Your task to perform on an android device: create a new album in the google photos Image 0: 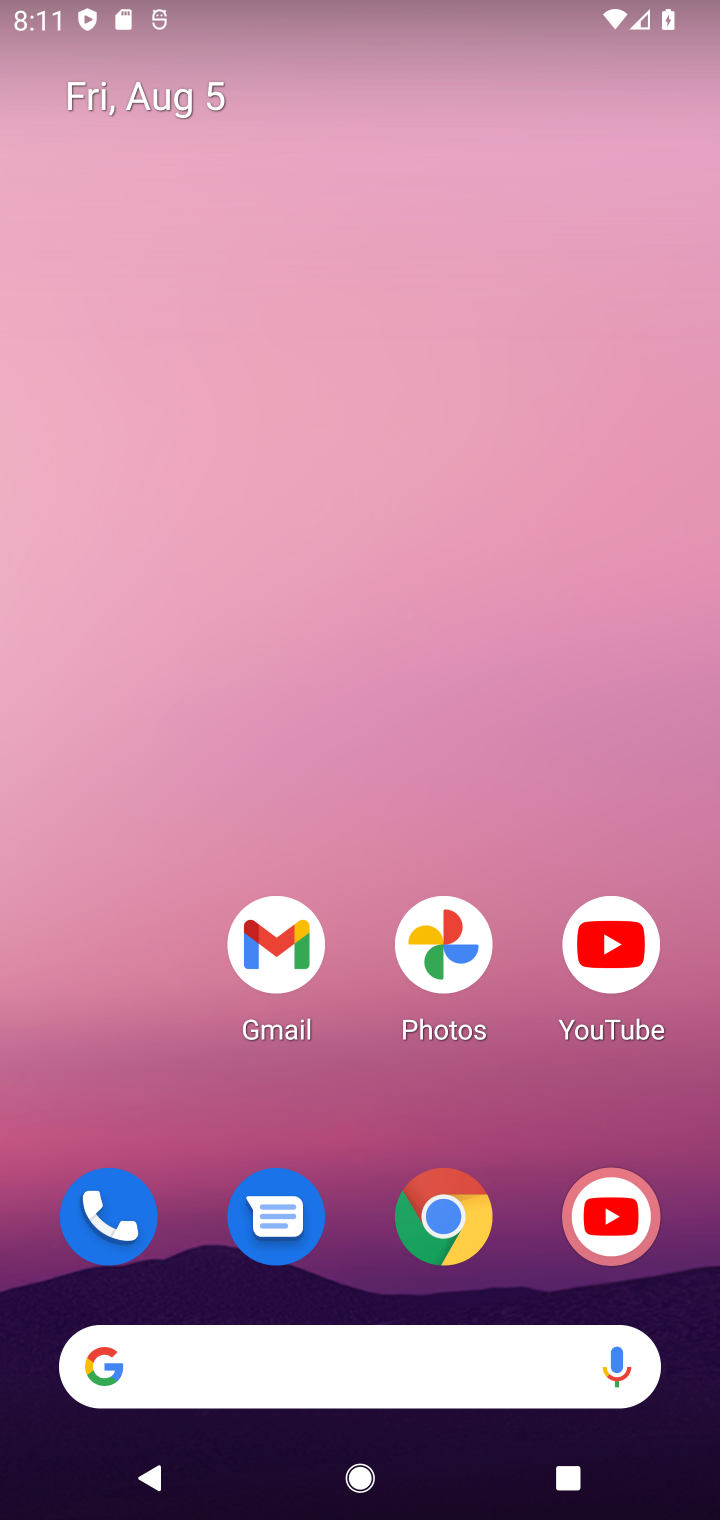
Step 0: drag from (309, 1013) to (378, 429)
Your task to perform on an android device: create a new album in the google photos Image 1: 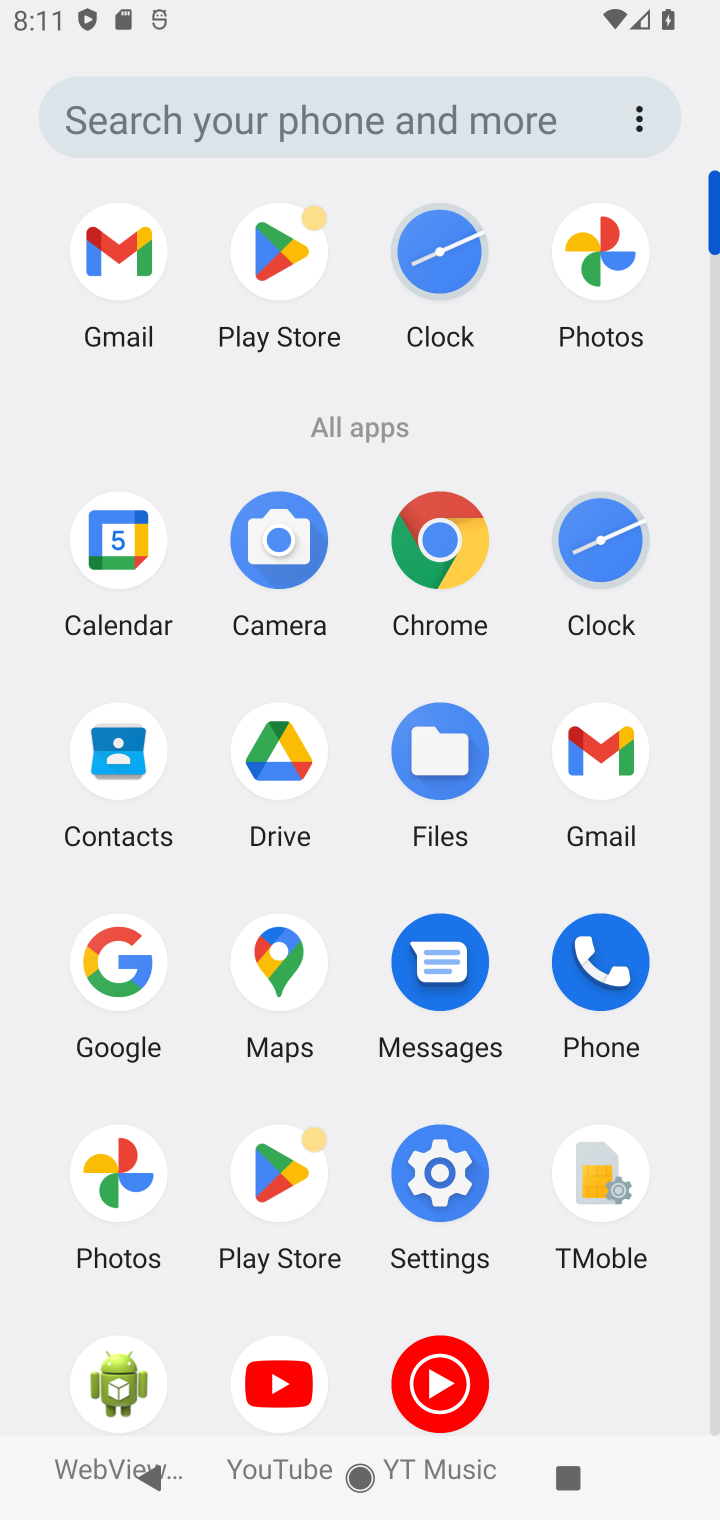
Step 1: click (596, 759)
Your task to perform on an android device: create a new album in the google photos Image 2: 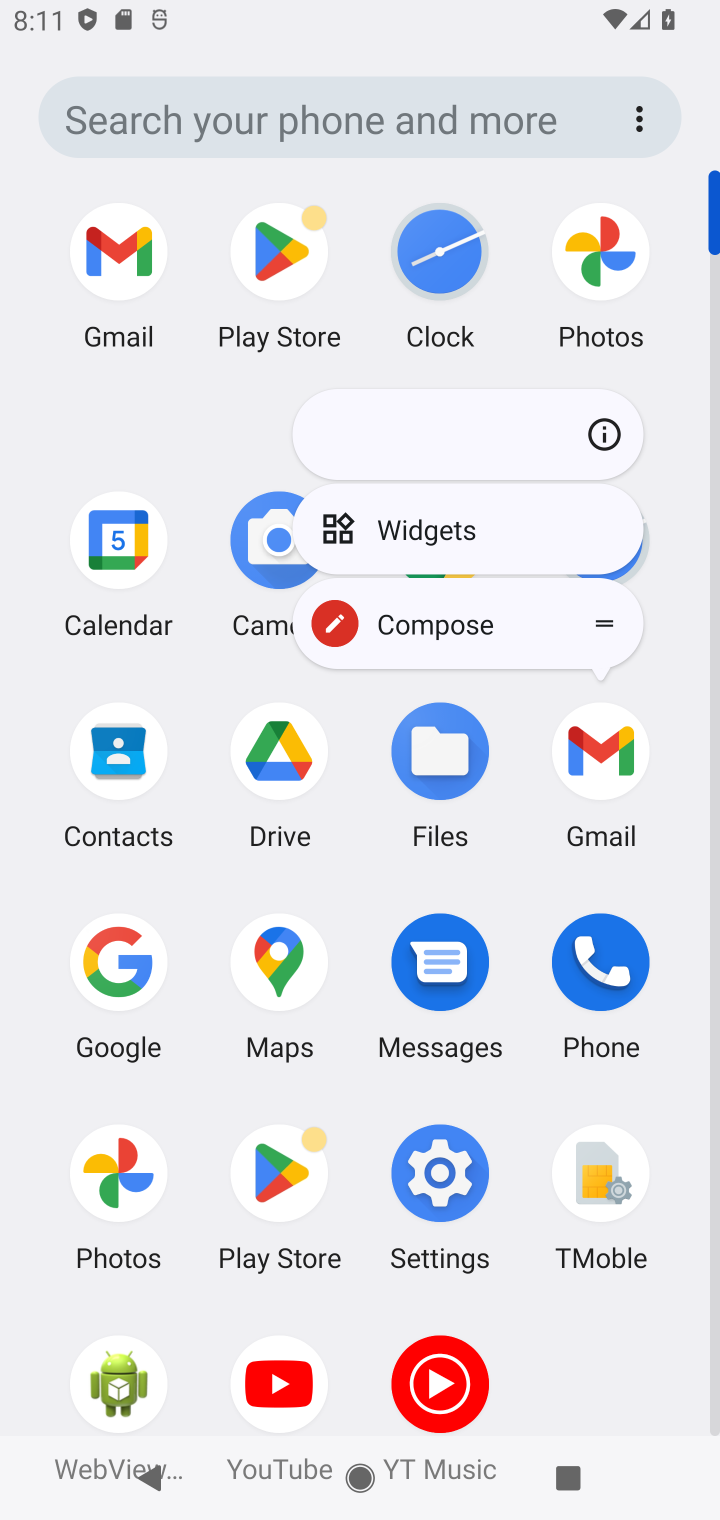
Step 2: click (605, 413)
Your task to perform on an android device: create a new album in the google photos Image 3: 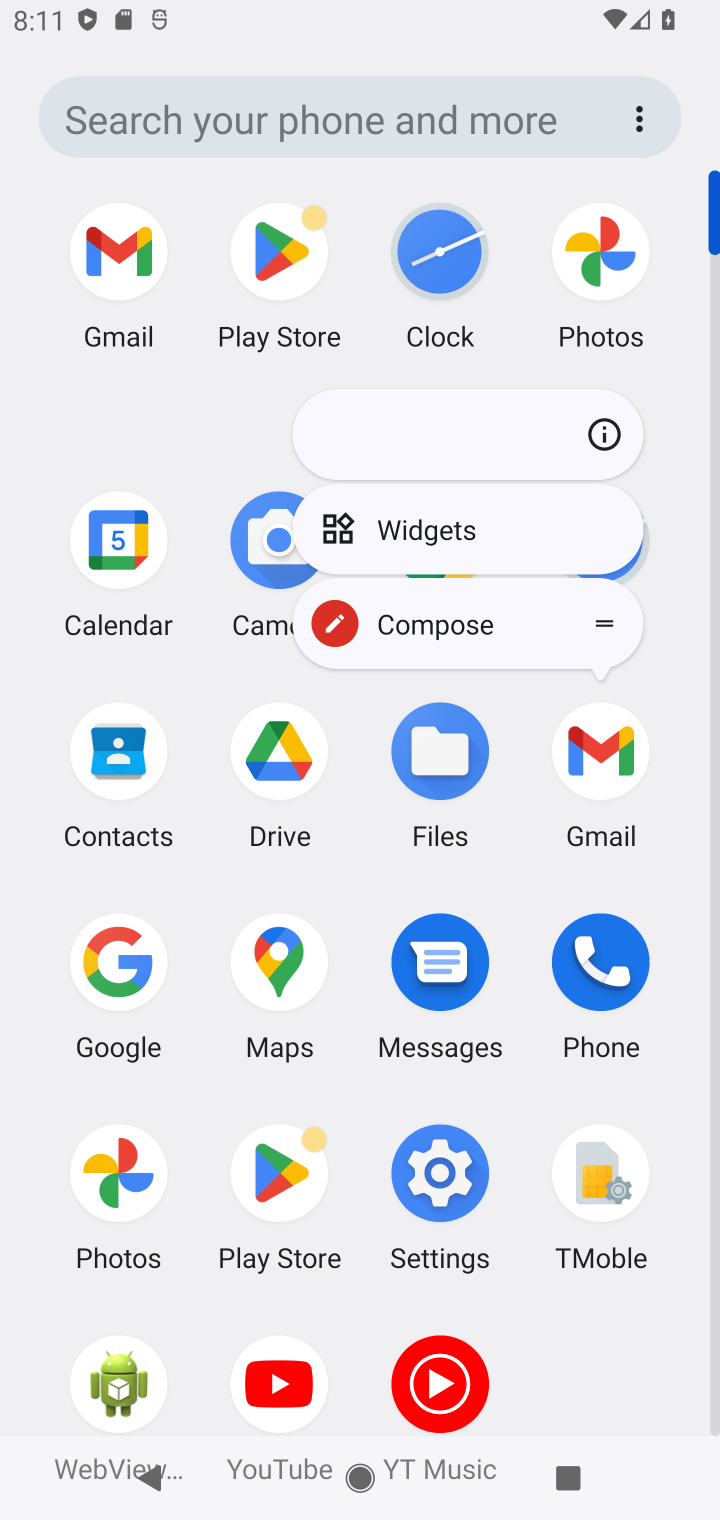
Step 3: click (601, 450)
Your task to perform on an android device: create a new album in the google photos Image 4: 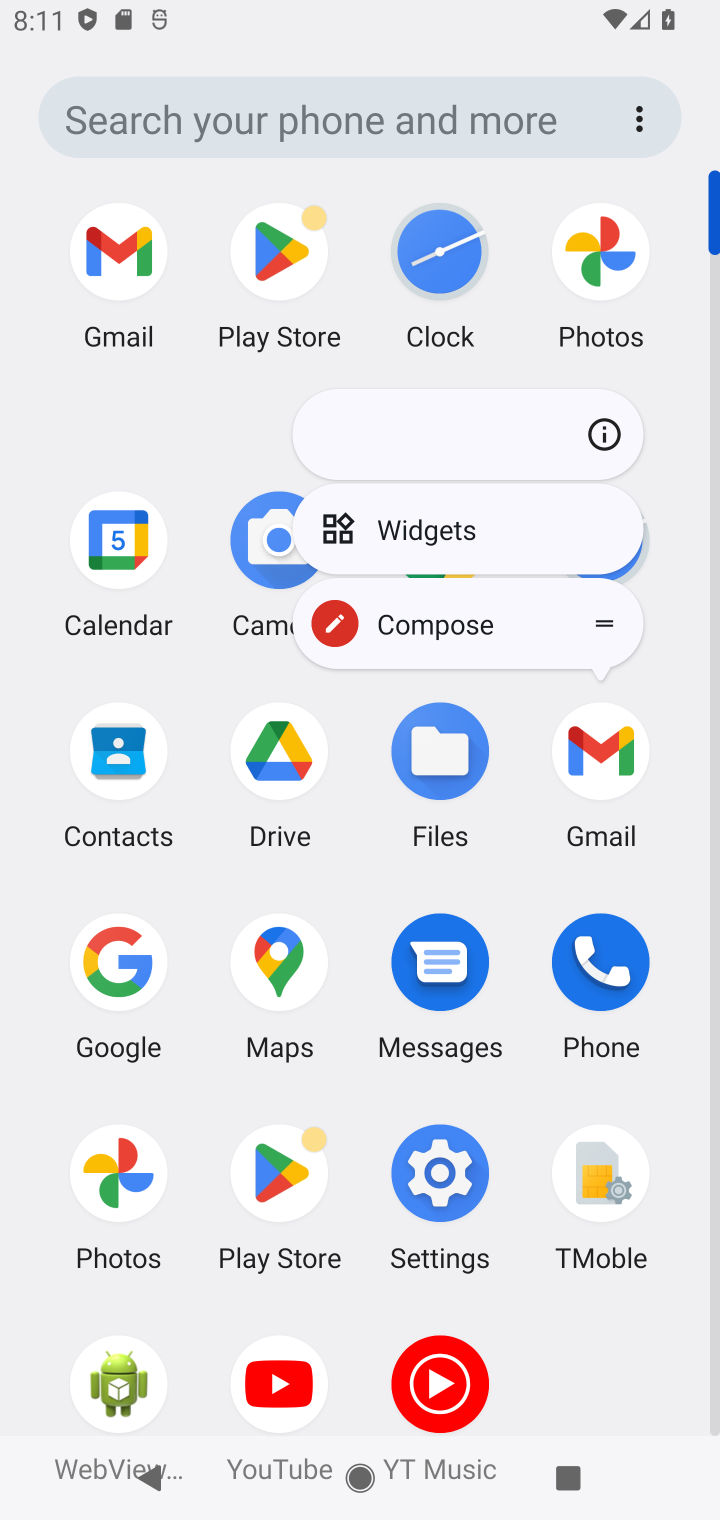
Step 4: click (616, 422)
Your task to perform on an android device: create a new album in the google photos Image 5: 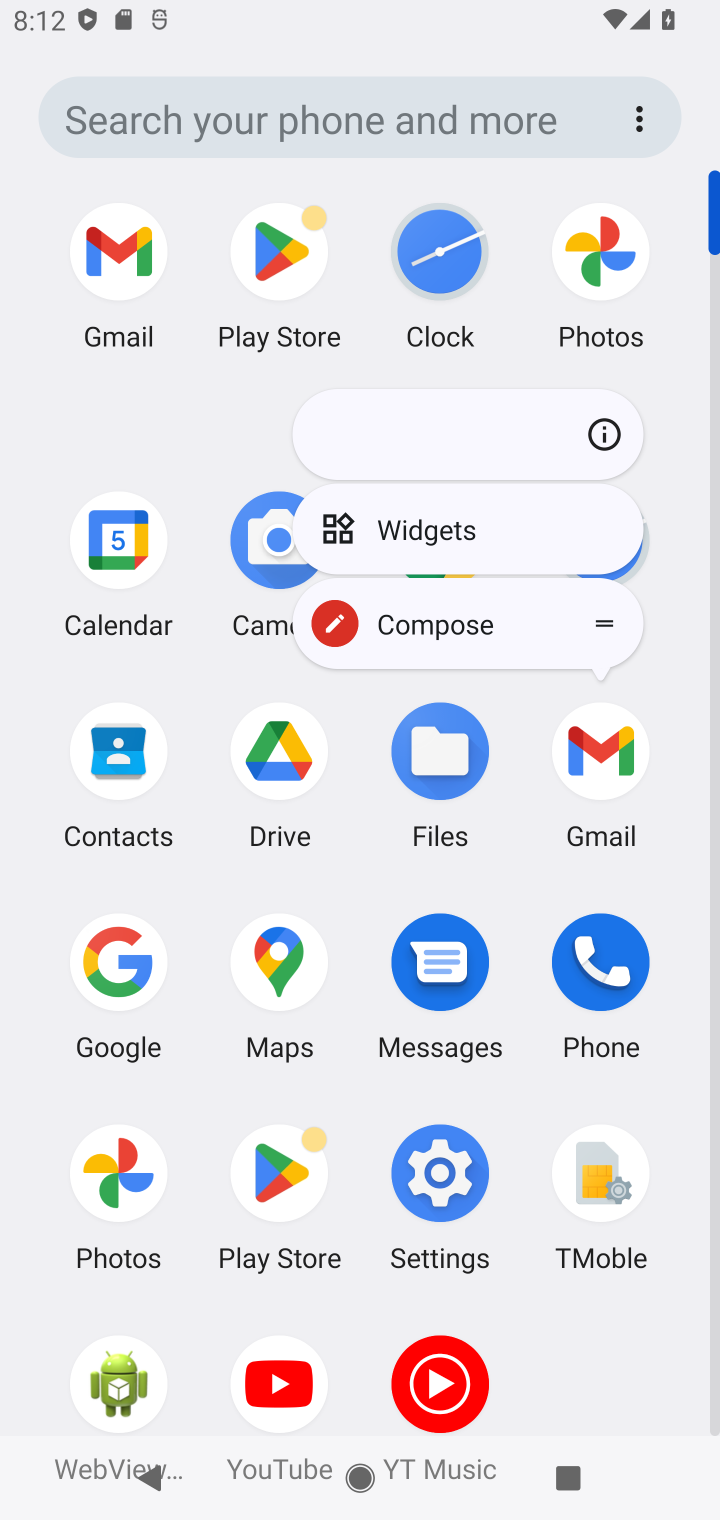
Step 5: click (100, 1149)
Your task to perform on an android device: create a new album in the google photos Image 6: 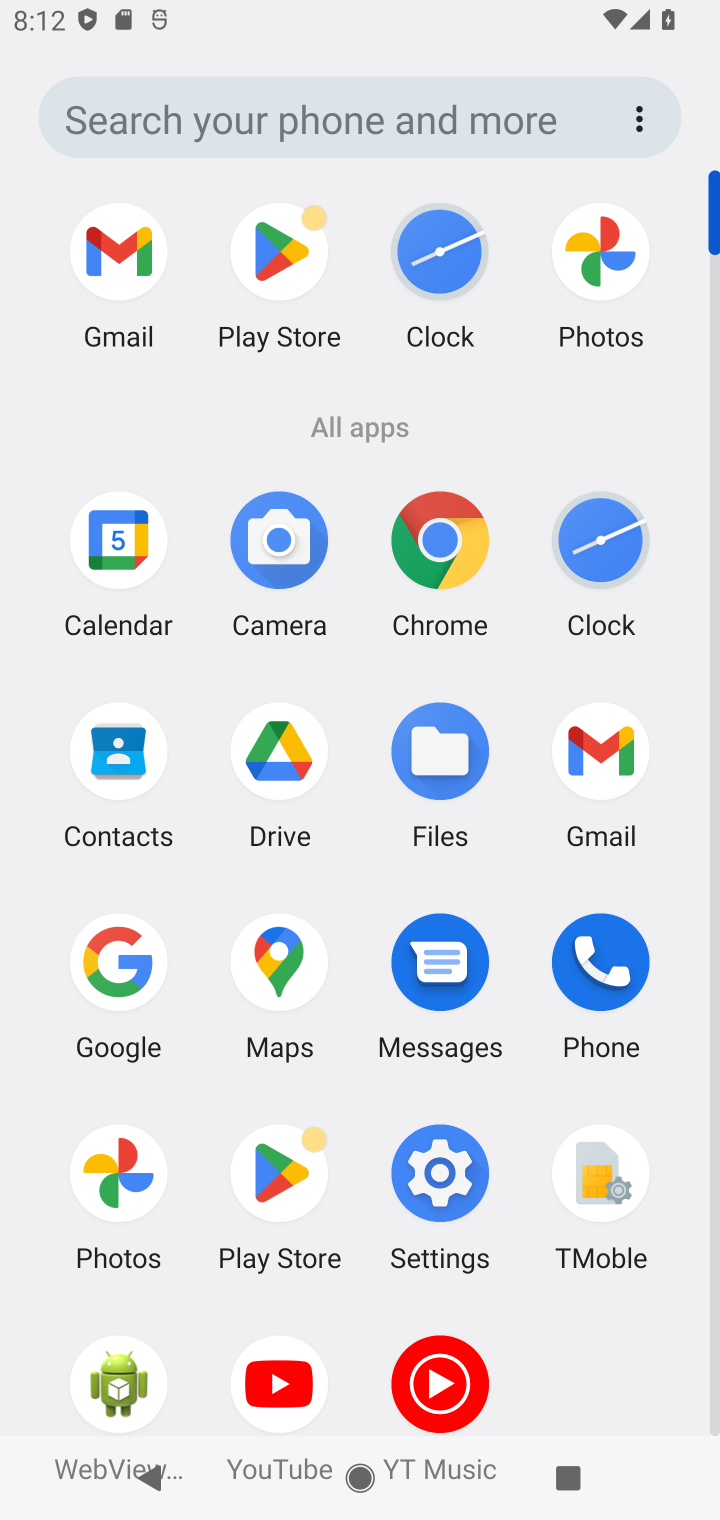
Step 6: click (111, 1149)
Your task to perform on an android device: create a new album in the google photos Image 7: 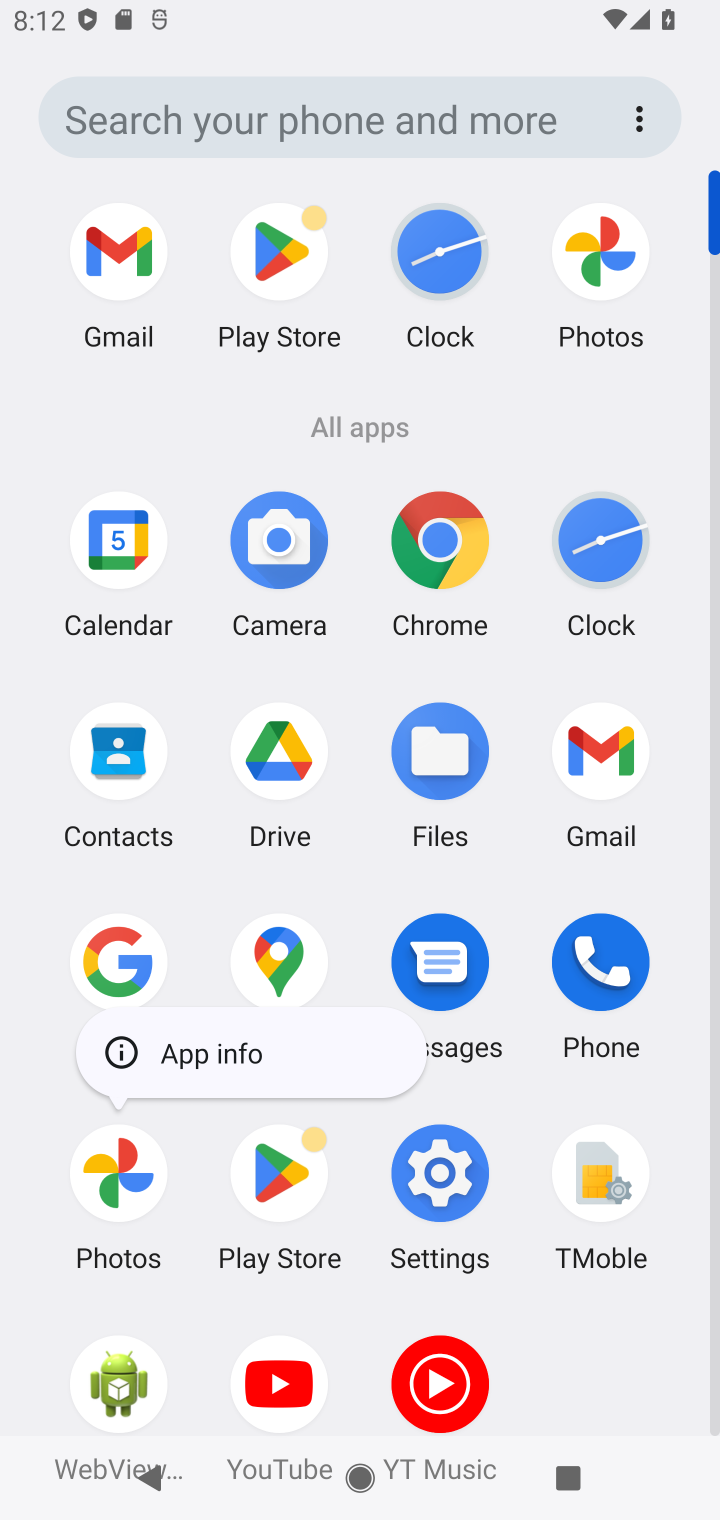
Step 7: click (162, 1062)
Your task to perform on an android device: create a new album in the google photos Image 8: 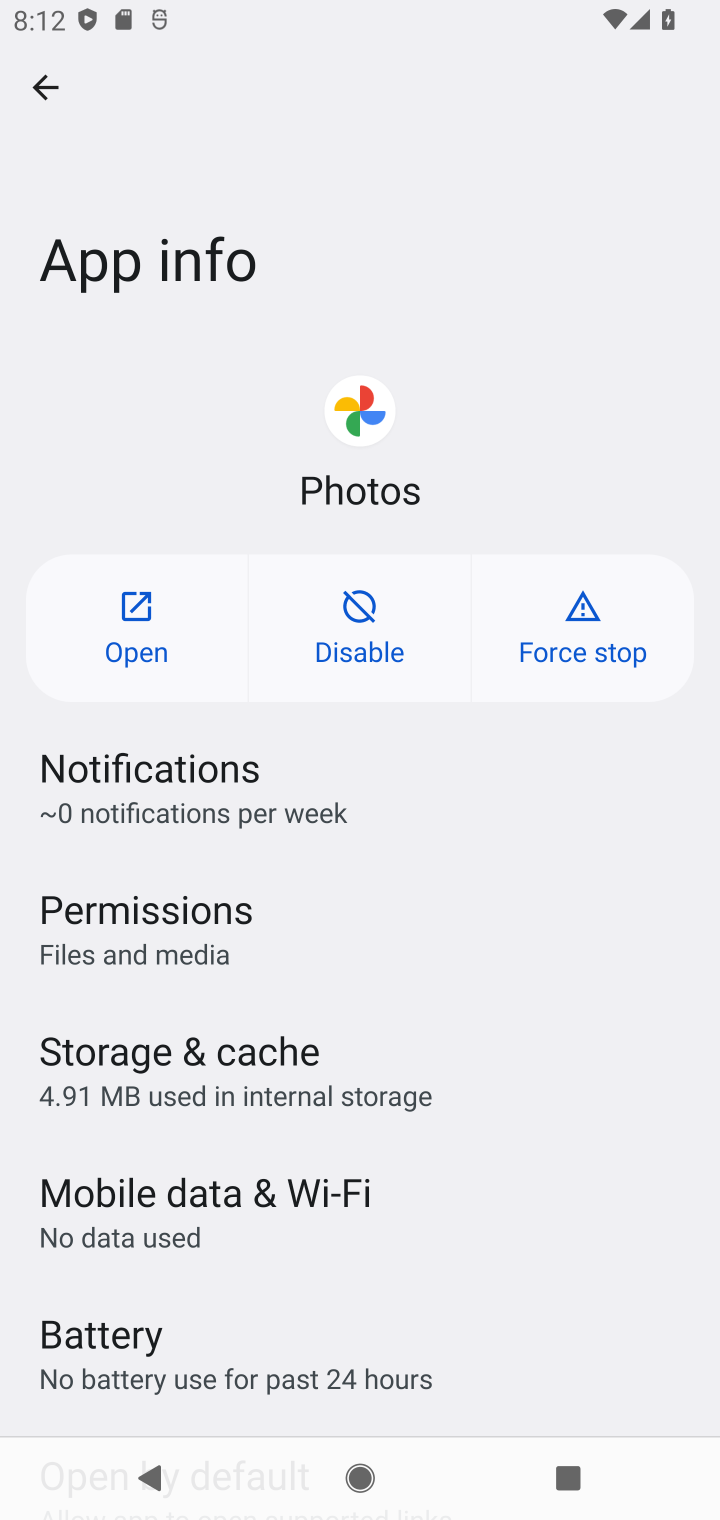
Step 8: click (154, 614)
Your task to perform on an android device: create a new album in the google photos Image 9: 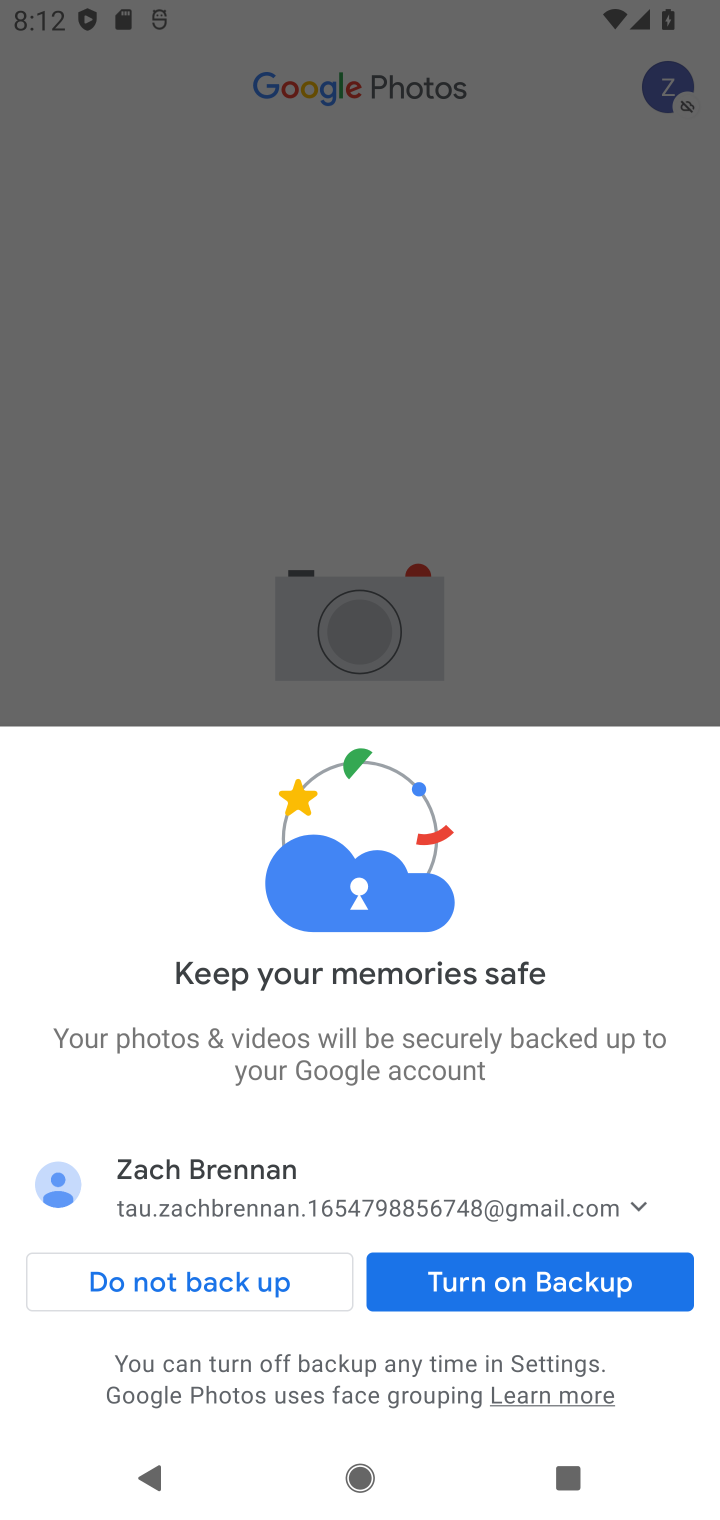
Step 9: click (546, 1297)
Your task to perform on an android device: create a new album in the google photos Image 10: 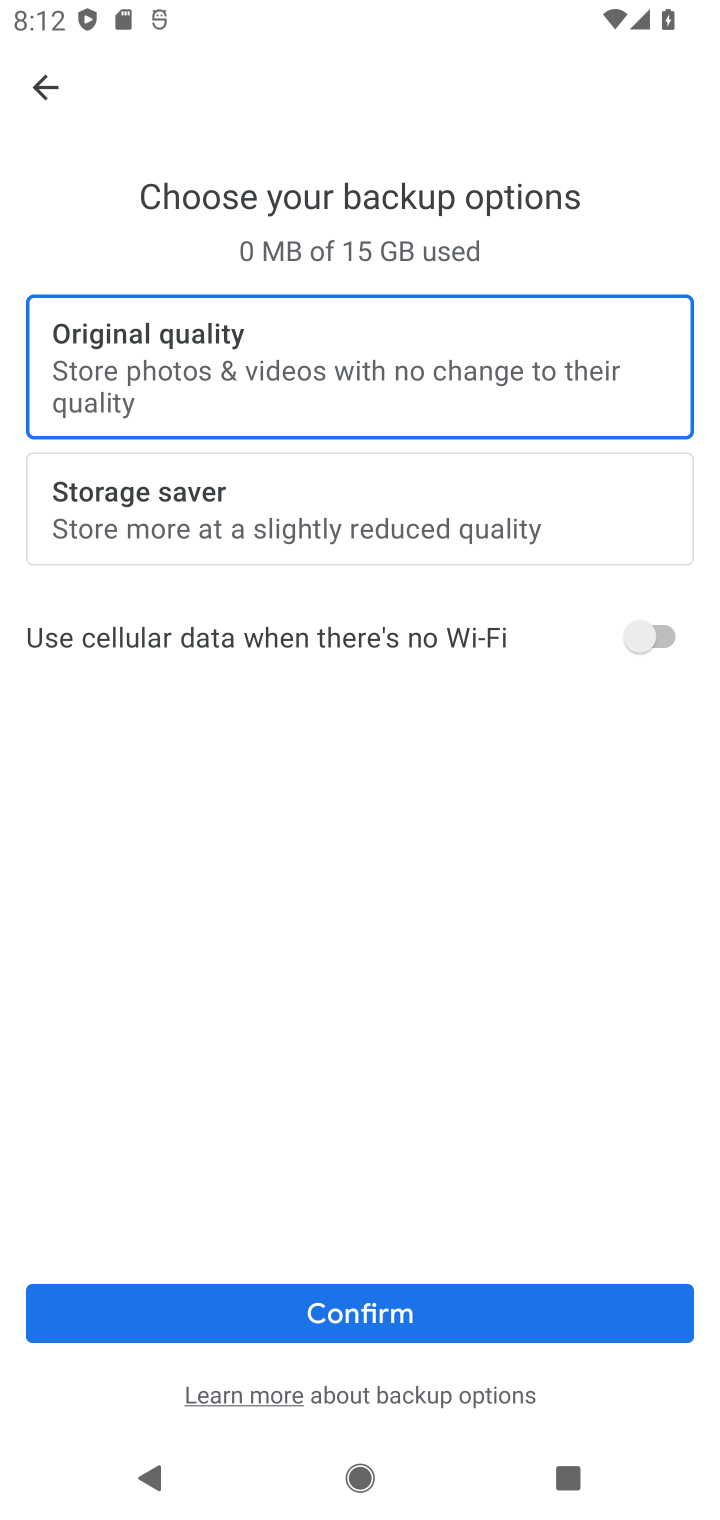
Step 10: click (406, 1328)
Your task to perform on an android device: create a new album in the google photos Image 11: 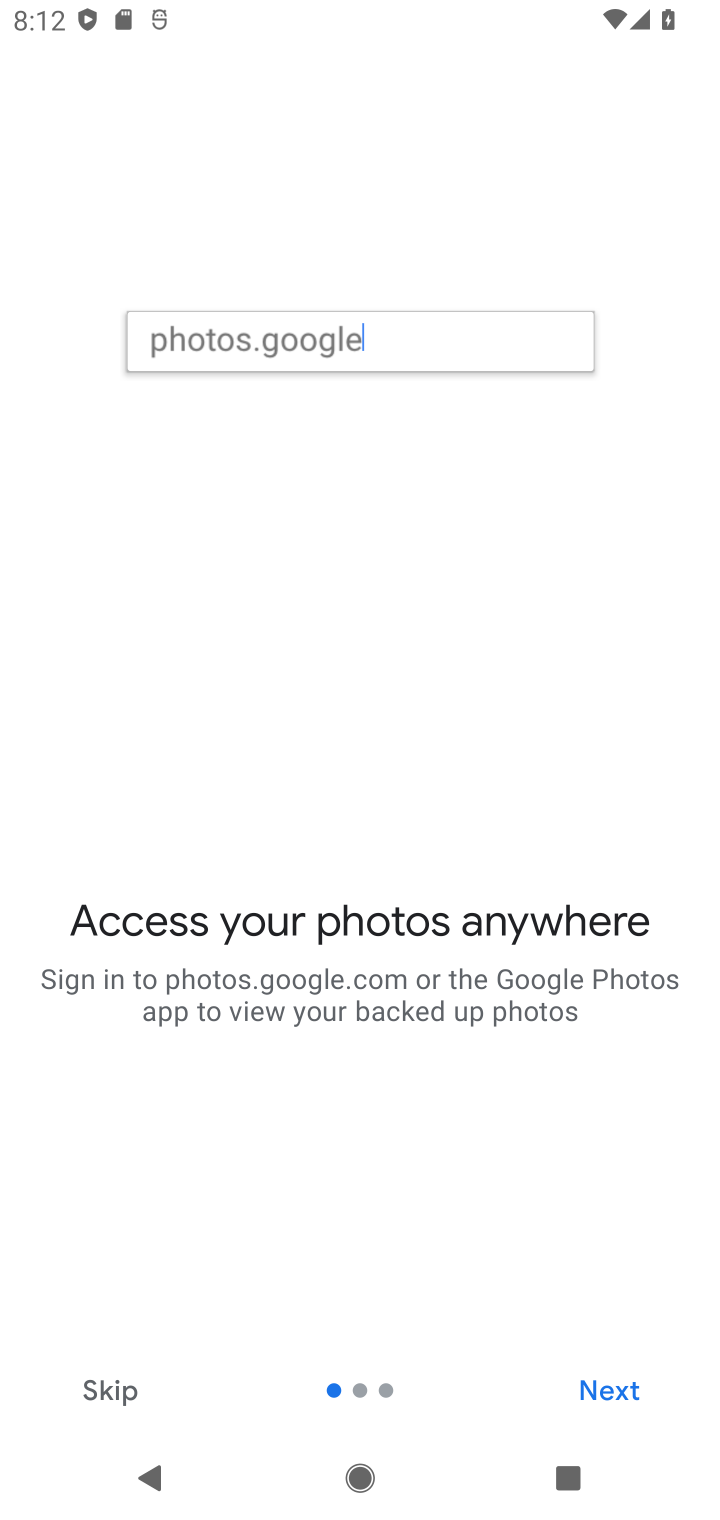
Step 11: click (111, 1395)
Your task to perform on an android device: create a new album in the google photos Image 12: 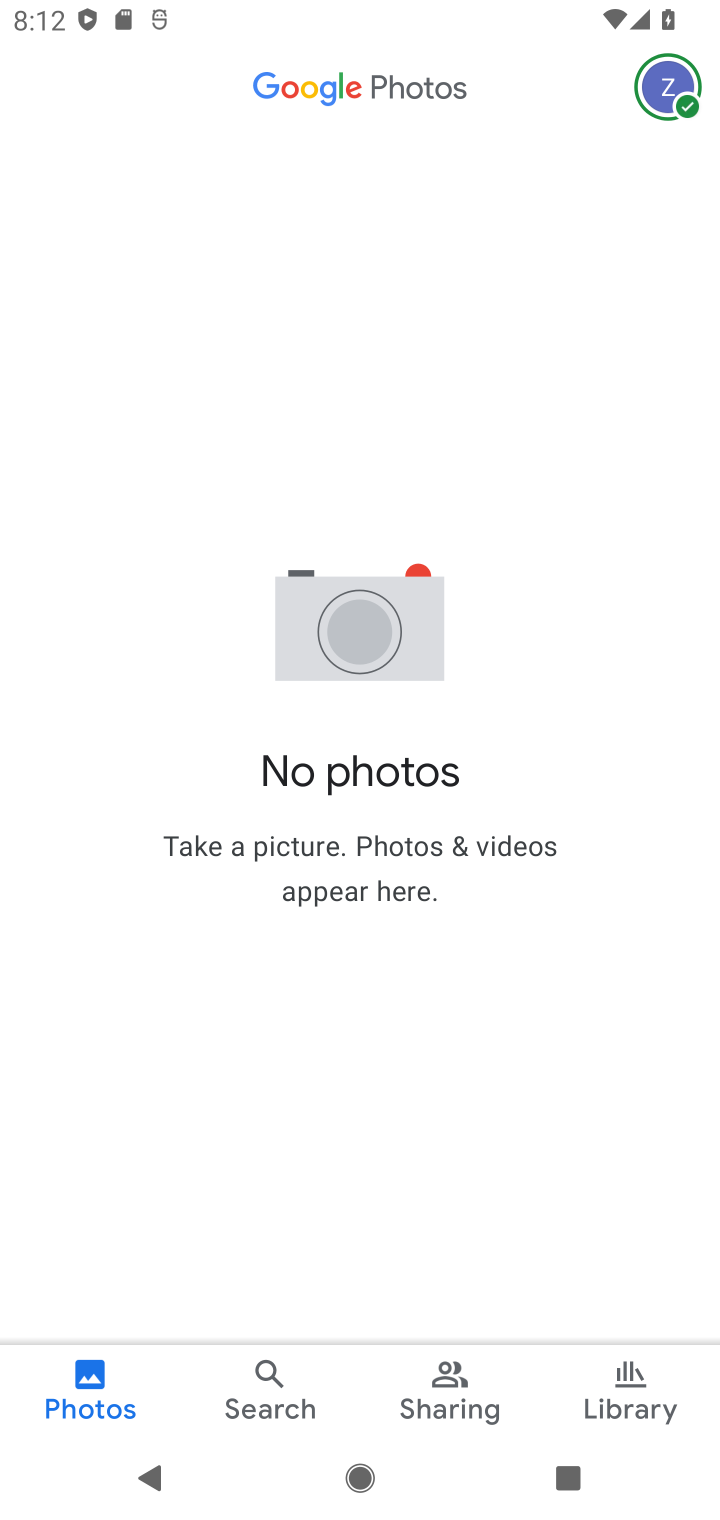
Step 12: click (591, 1385)
Your task to perform on an android device: create a new album in the google photos Image 13: 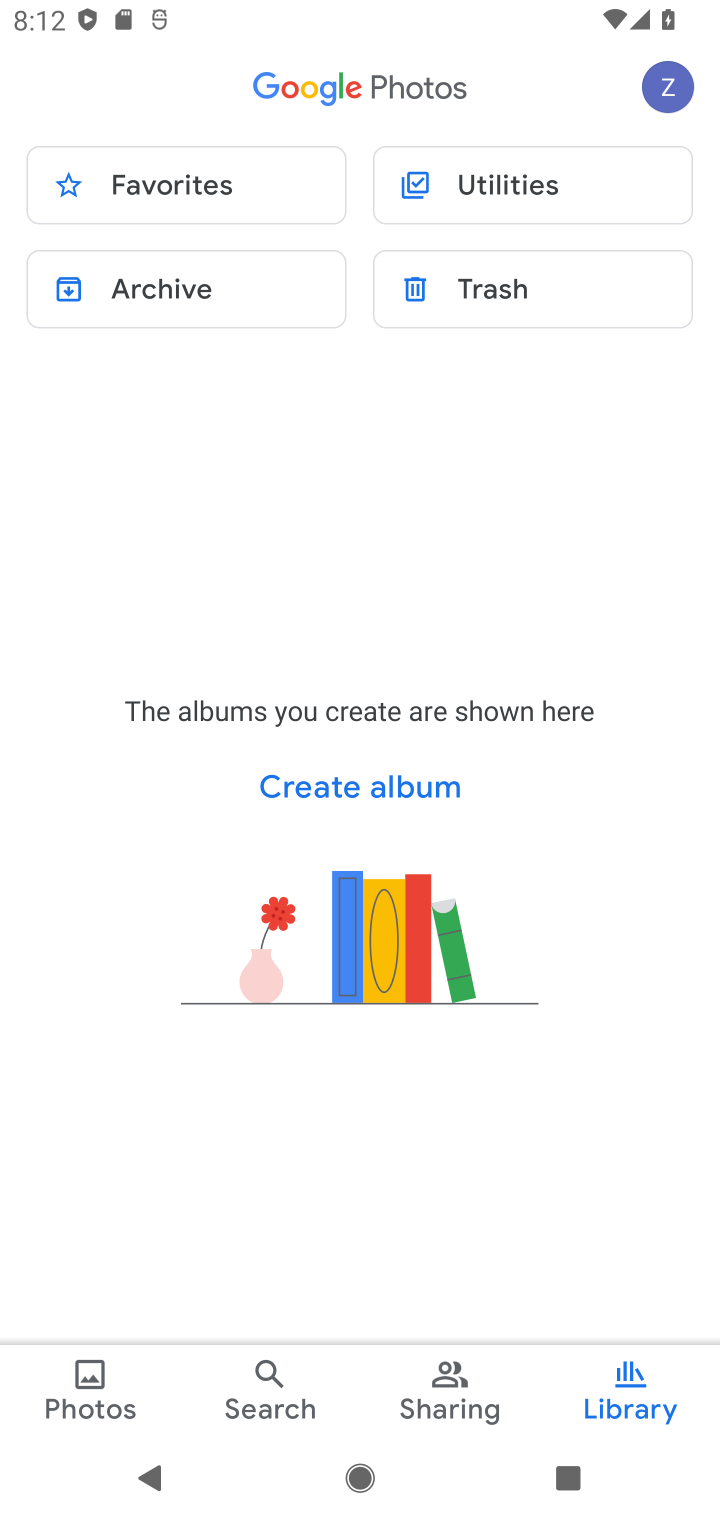
Step 13: click (363, 770)
Your task to perform on an android device: create a new album in the google photos Image 14: 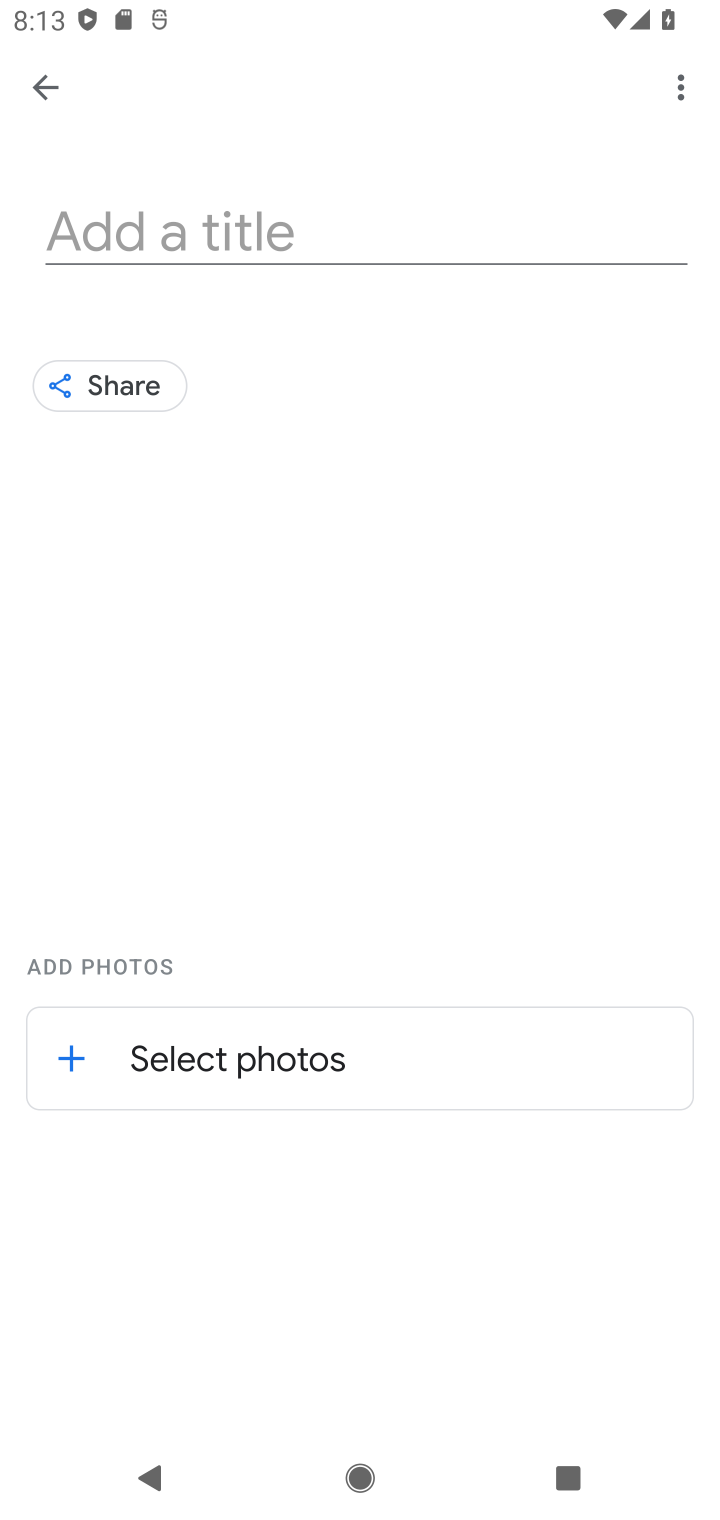
Step 14: drag from (295, 1100) to (447, 826)
Your task to perform on an android device: create a new album in the google photos Image 15: 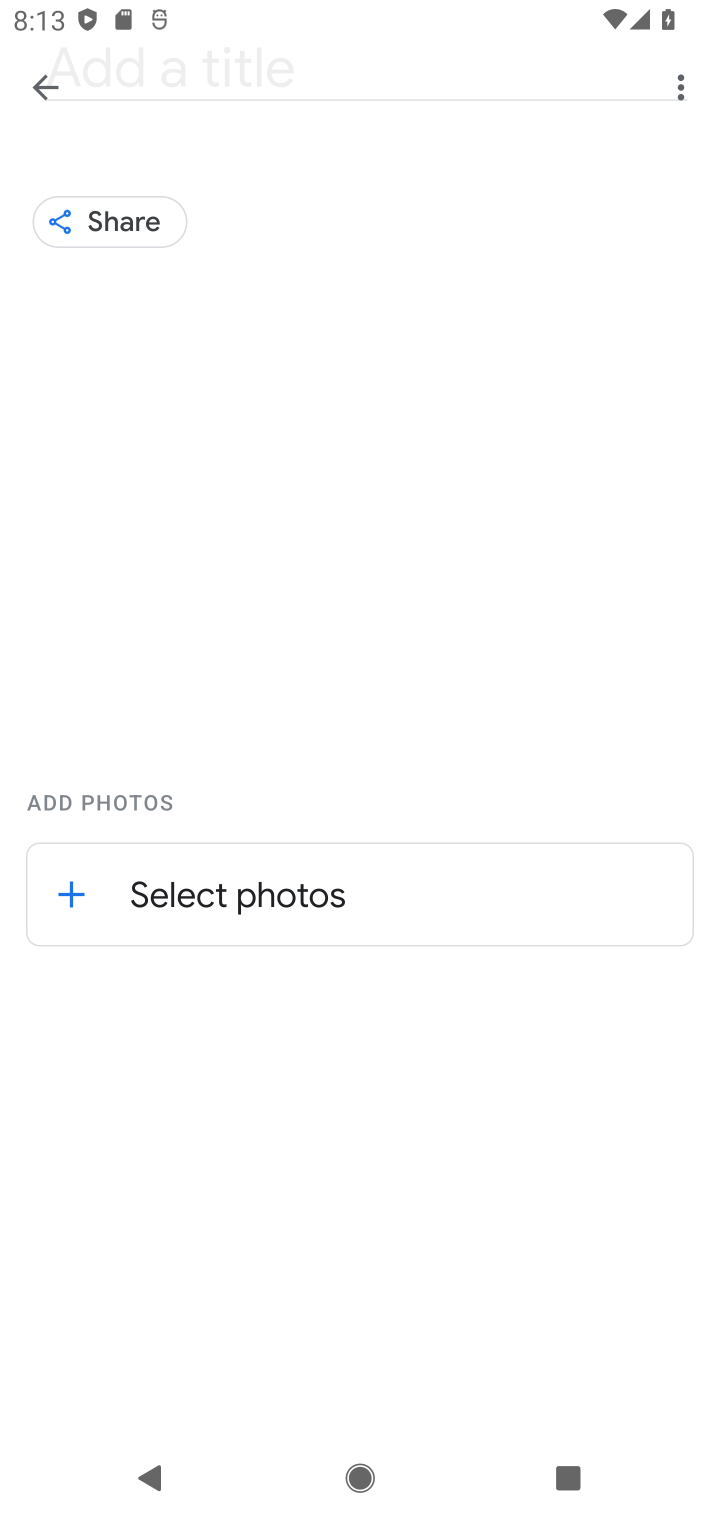
Step 15: drag from (278, 655) to (309, 1159)
Your task to perform on an android device: create a new album in the google photos Image 16: 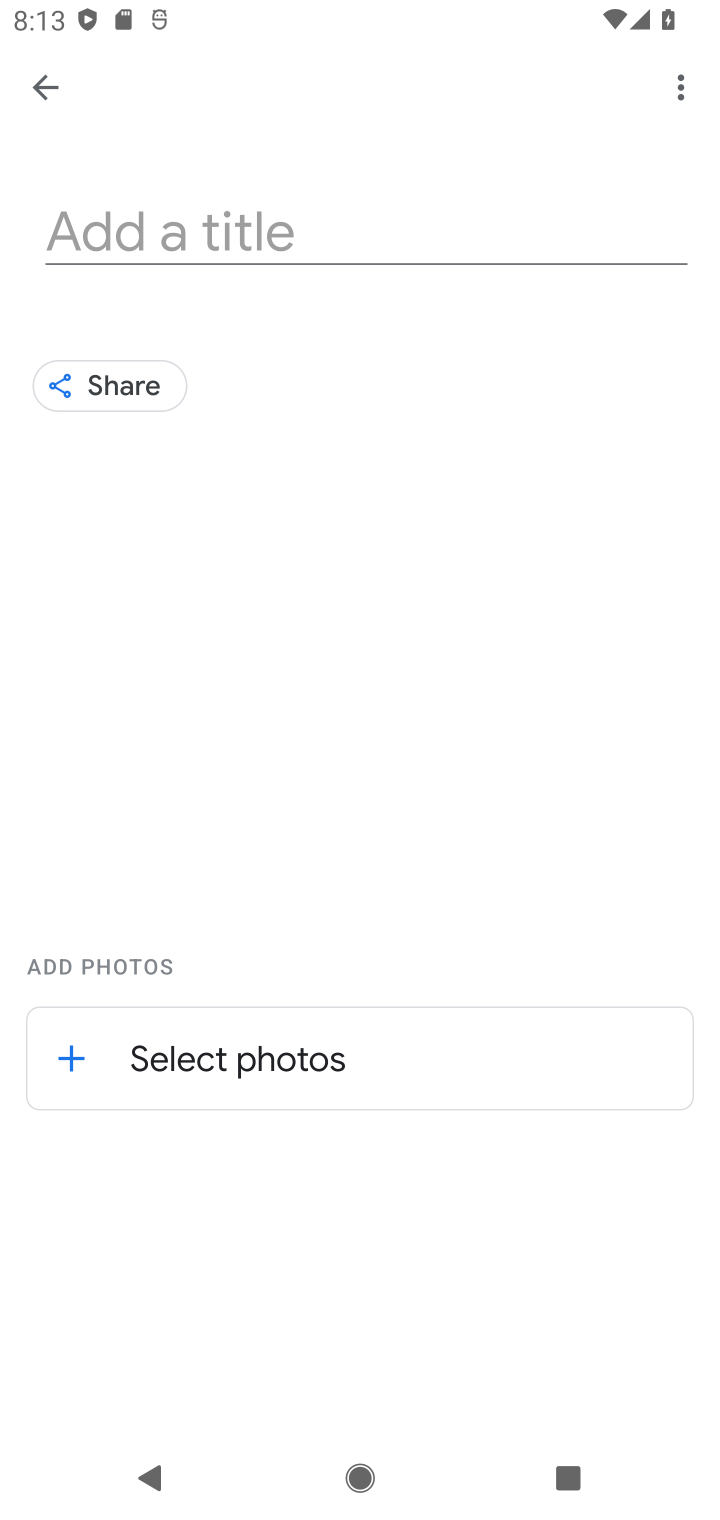
Step 16: click (184, 228)
Your task to perform on an android device: create a new album in the google photos Image 17: 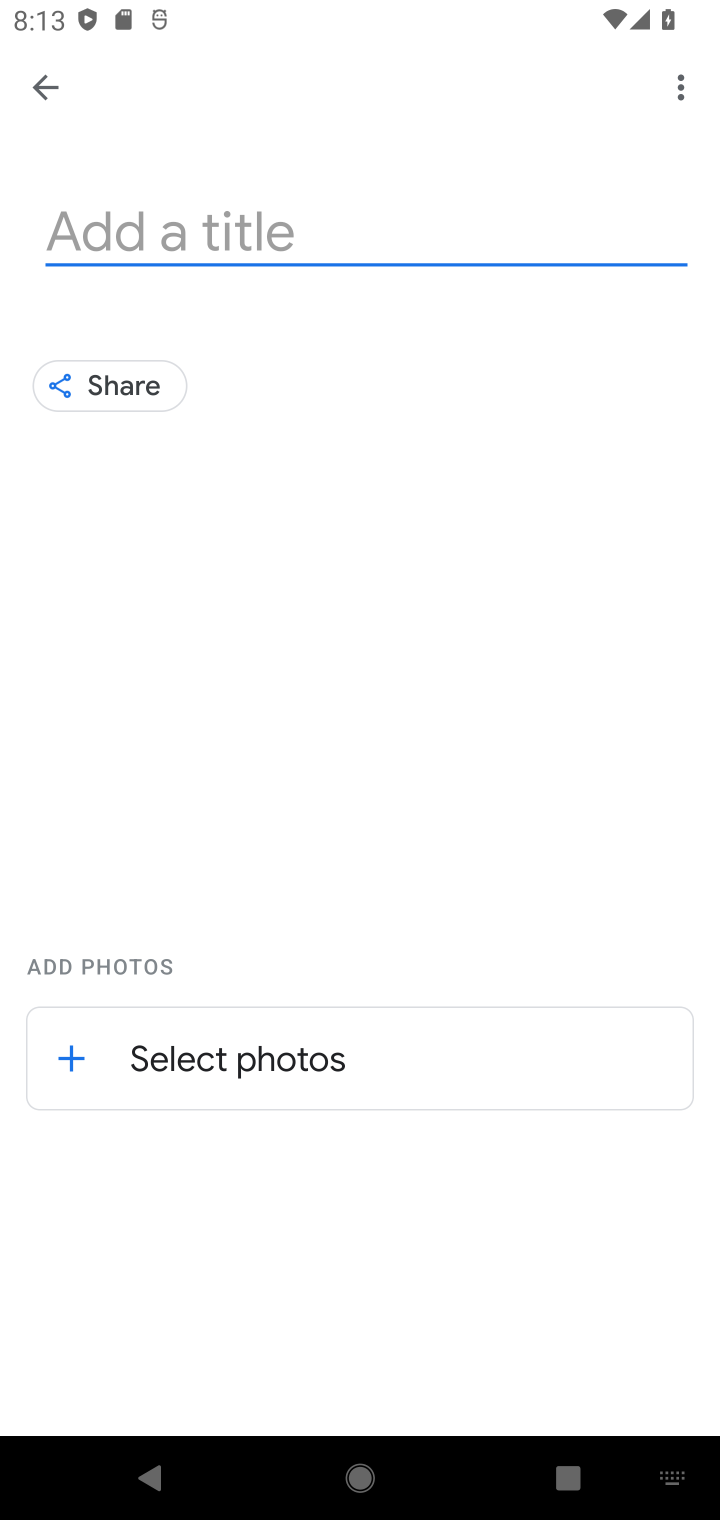
Step 17: type "mhk"
Your task to perform on an android device: create a new album in the google photos Image 18: 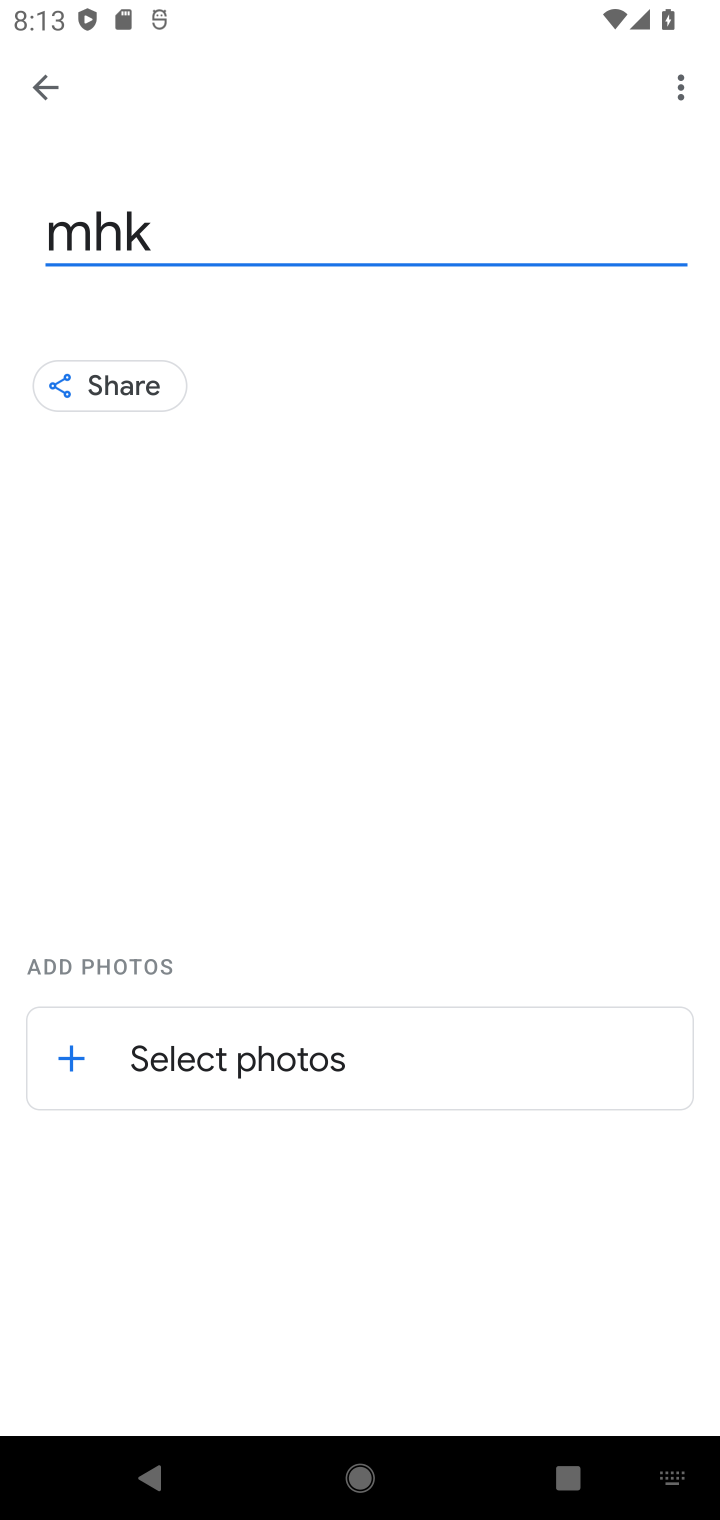
Step 18: click (61, 1058)
Your task to perform on an android device: create a new album in the google photos Image 19: 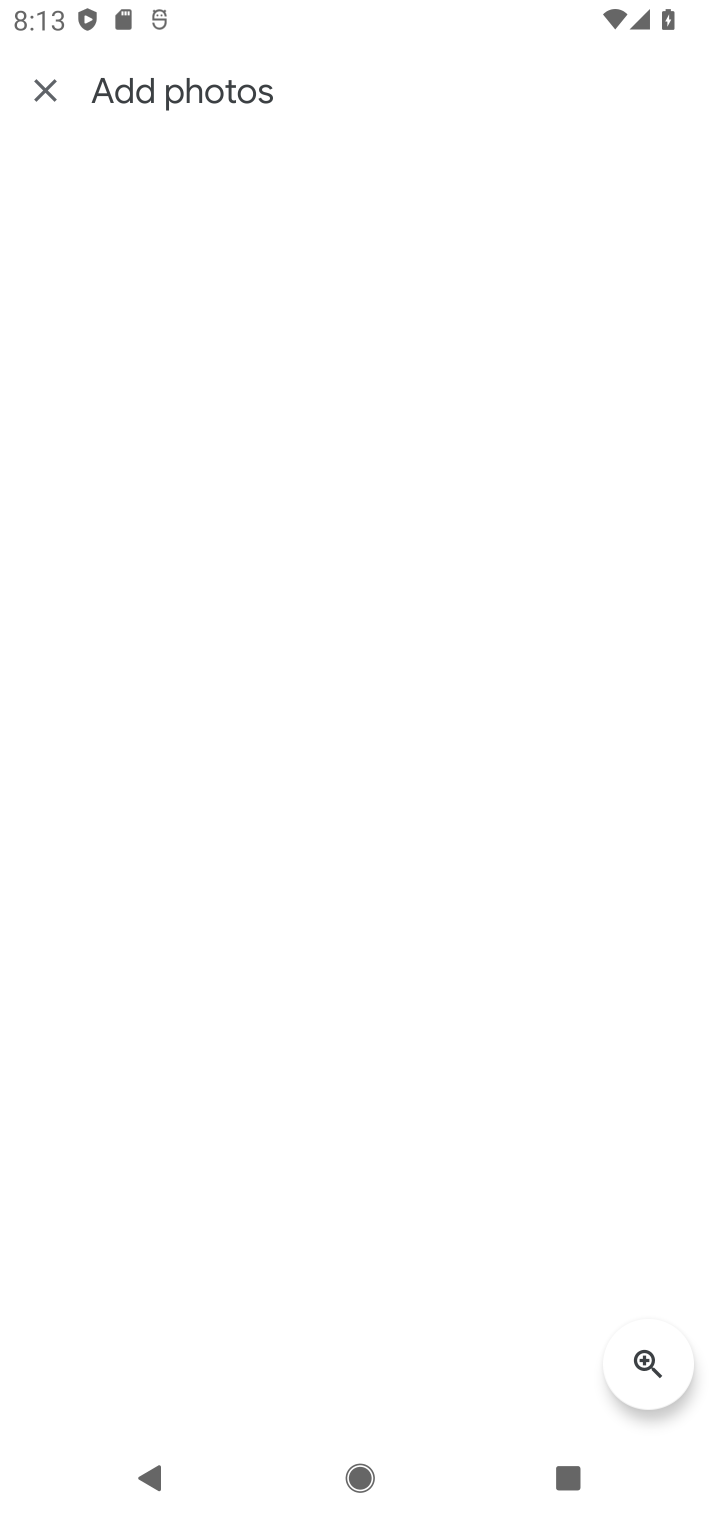
Step 19: task complete